Your task to perform on an android device: check data usage Image 0: 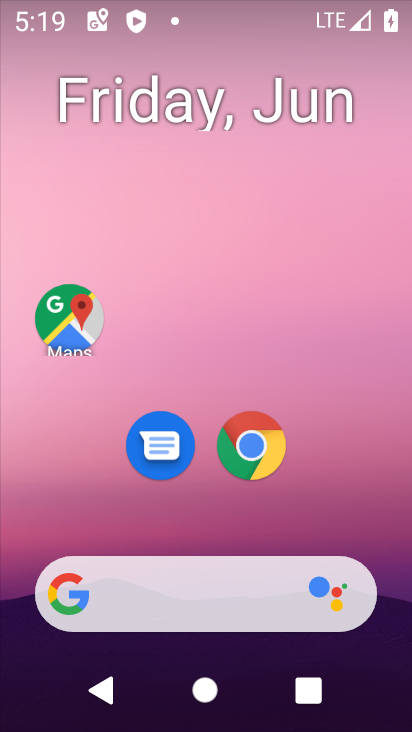
Step 0: drag from (402, 631) to (329, 33)
Your task to perform on an android device: check data usage Image 1: 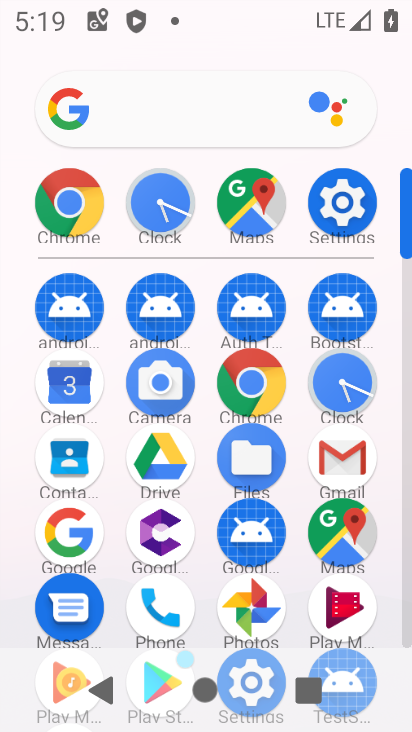
Step 1: drag from (19, 508) to (11, 142)
Your task to perform on an android device: check data usage Image 2: 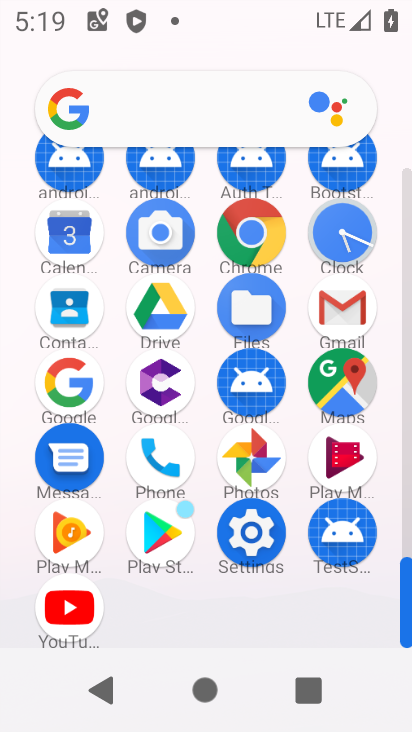
Step 2: click (250, 530)
Your task to perform on an android device: check data usage Image 3: 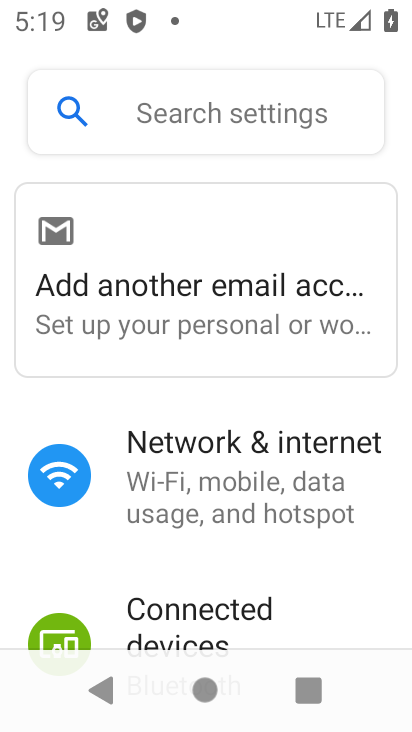
Step 3: click (241, 490)
Your task to perform on an android device: check data usage Image 4: 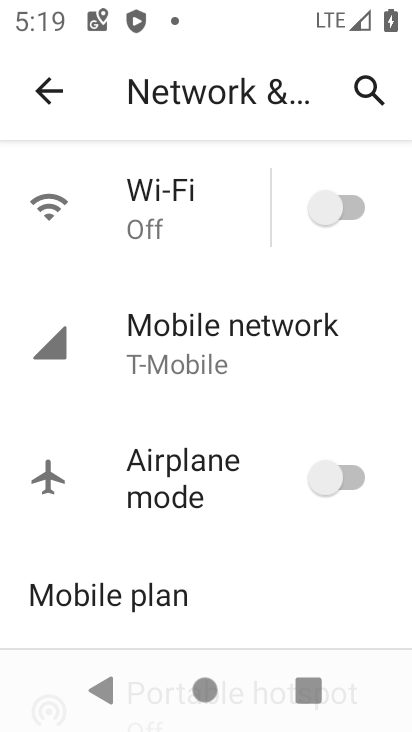
Step 4: drag from (229, 582) to (230, 215)
Your task to perform on an android device: check data usage Image 5: 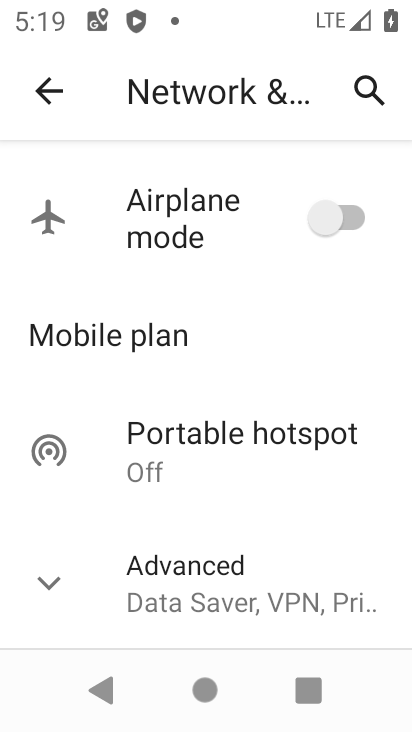
Step 5: click (75, 590)
Your task to perform on an android device: check data usage Image 6: 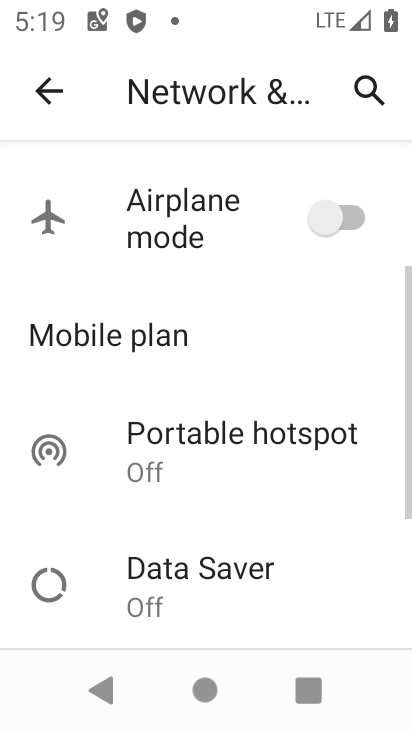
Step 6: drag from (209, 519) to (198, 227)
Your task to perform on an android device: check data usage Image 7: 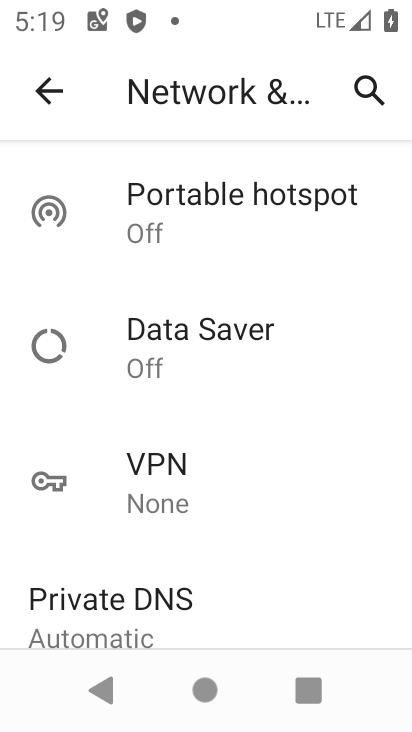
Step 7: drag from (225, 237) to (226, 554)
Your task to perform on an android device: check data usage Image 8: 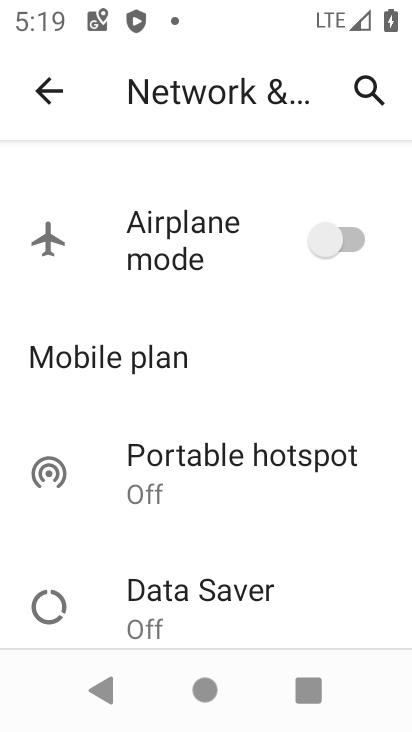
Step 8: drag from (209, 253) to (221, 570)
Your task to perform on an android device: check data usage Image 9: 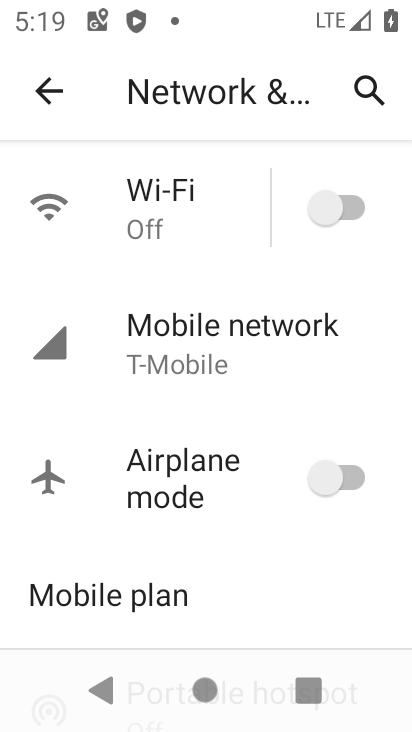
Step 9: drag from (201, 217) to (205, 629)
Your task to perform on an android device: check data usage Image 10: 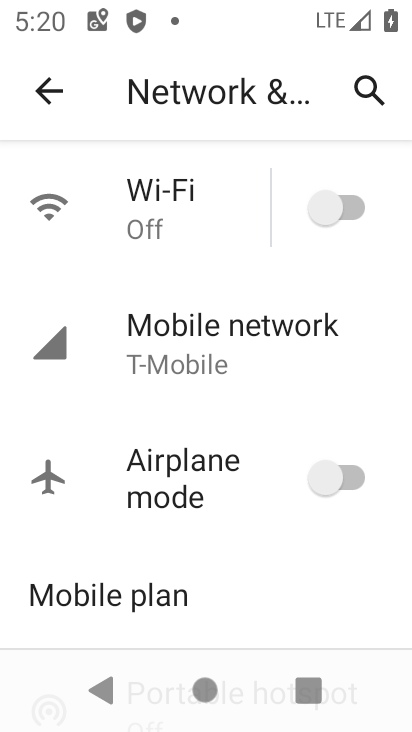
Step 10: click (215, 355)
Your task to perform on an android device: check data usage Image 11: 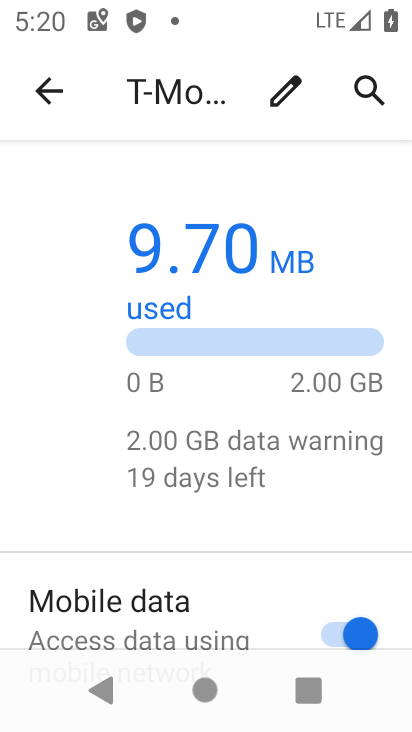
Step 11: task complete